Your task to perform on an android device: toggle javascript in the chrome app Image 0: 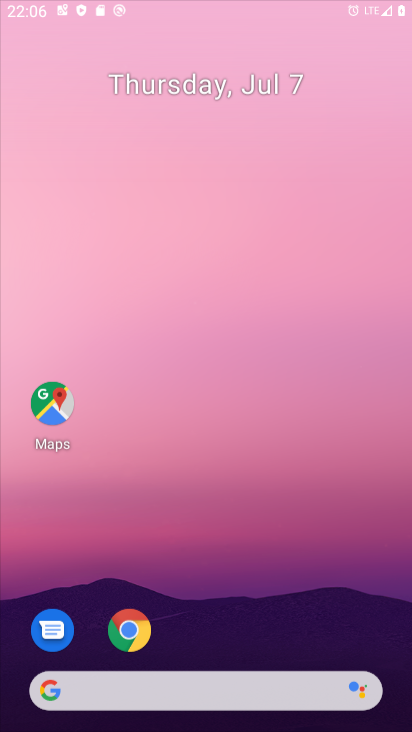
Step 0: click (200, 423)
Your task to perform on an android device: toggle javascript in the chrome app Image 1: 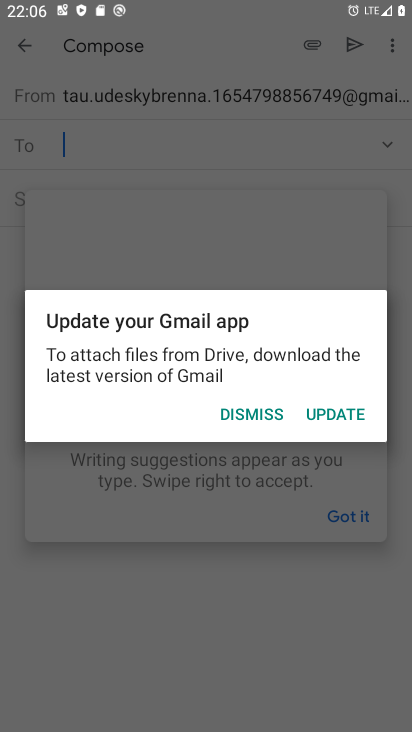
Step 1: press home button
Your task to perform on an android device: toggle javascript in the chrome app Image 2: 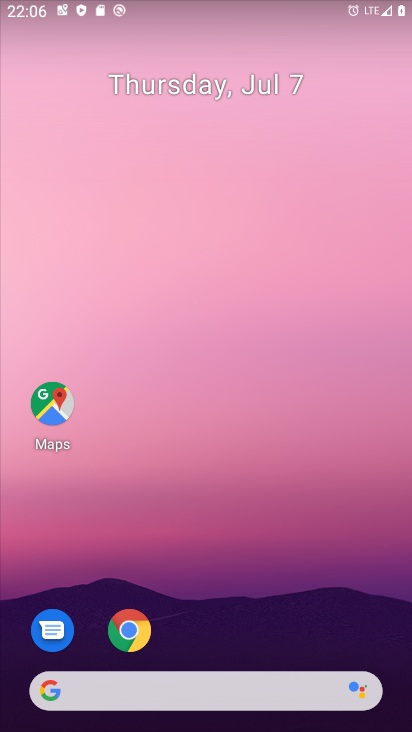
Step 2: drag from (166, 644) to (346, 33)
Your task to perform on an android device: toggle javascript in the chrome app Image 3: 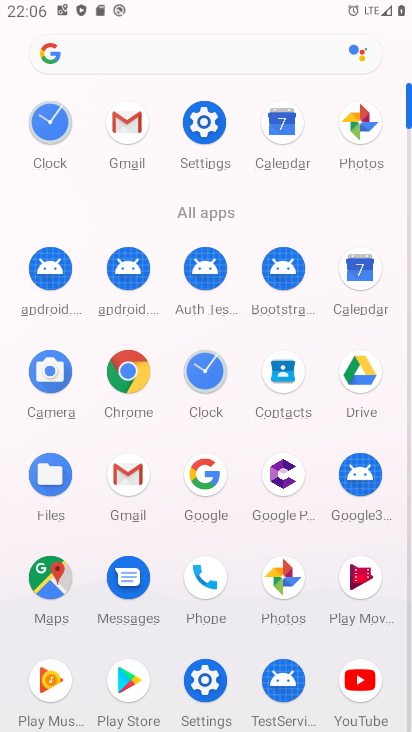
Step 3: click (126, 368)
Your task to perform on an android device: toggle javascript in the chrome app Image 4: 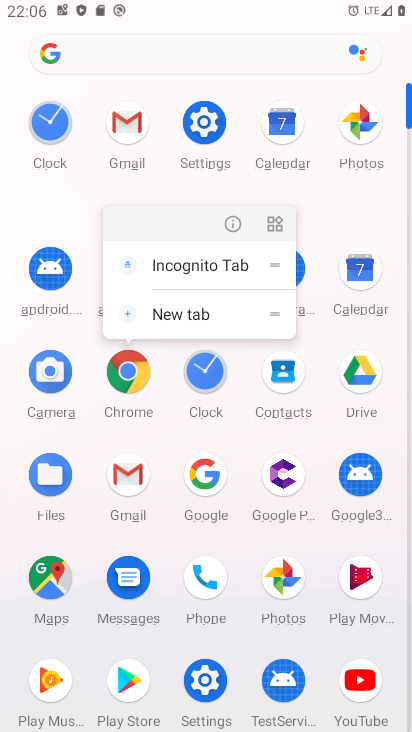
Step 4: click (231, 219)
Your task to perform on an android device: toggle javascript in the chrome app Image 5: 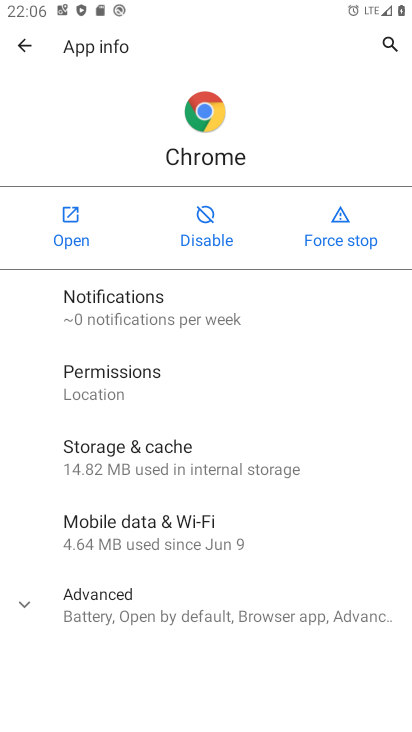
Step 5: click (54, 226)
Your task to perform on an android device: toggle javascript in the chrome app Image 6: 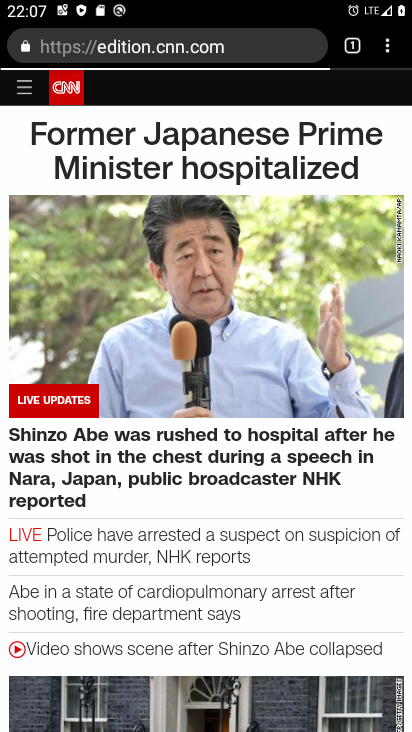
Step 6: drag from (180, 414) to (194, 123)
Your task to perform on an android device: toggle javascript in the chrome app Image 7: 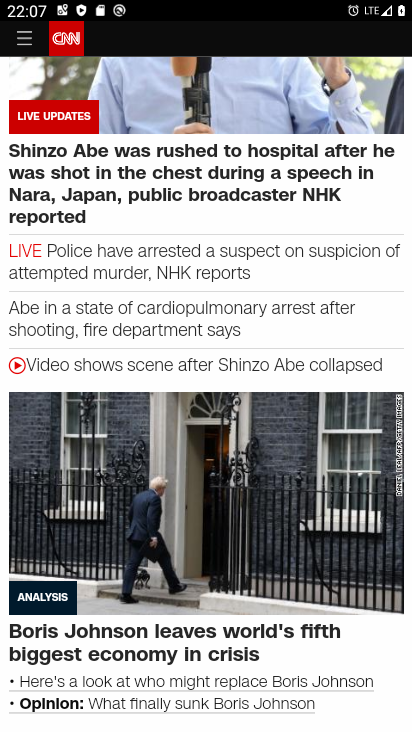
Step 7: drag from (200, 262) to (267, 571)
Your task to perform on an android device: toggle javascript in the chrome app Image 8: 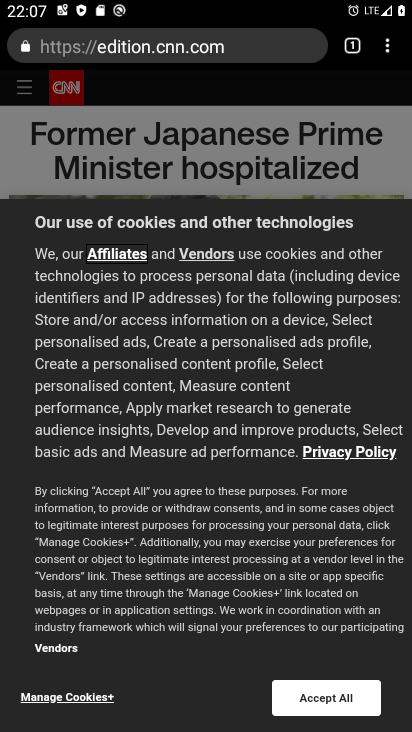
Step 8: press back button
Your task to perform on an android device: toggle javascript in the chrome app Image 9: 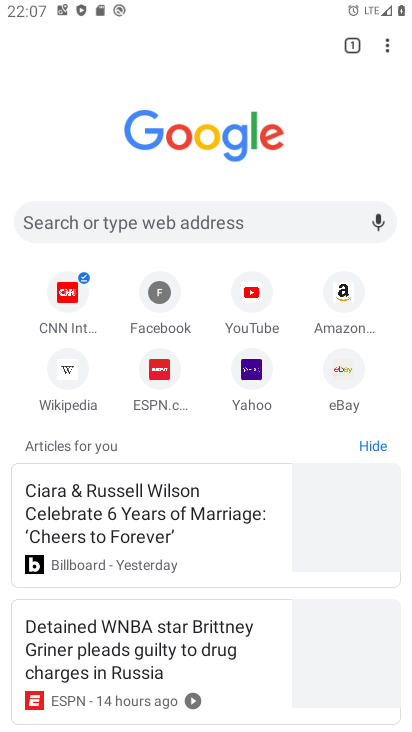
Step 9: click (382, 53)
Your task to perform on an android device: toggle javascript in the chrome app Image 10: 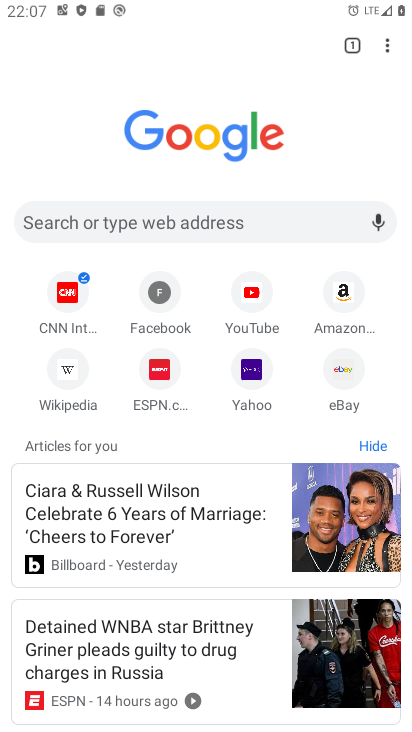
Step 10: click (389, 43)
Your task to perform on an android device: toggle javascript in the chrome app Image 11: 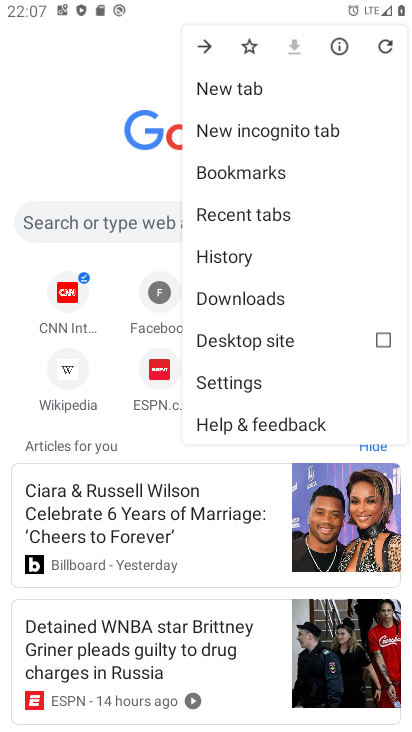
Step 11: click (221, 389)
Your task to perform on an android device: toggle javascript in the chrome app Image 12: 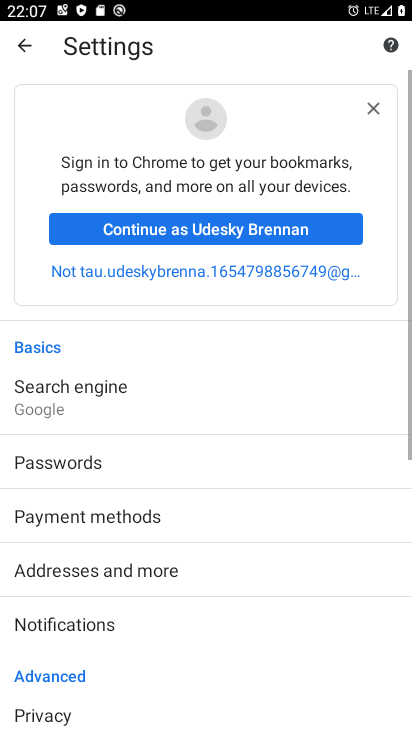
Step 12: drag from (182, 623) to (245, 241)
Your task to perform on an android device: toggle javascript in the chrome app Image 13: 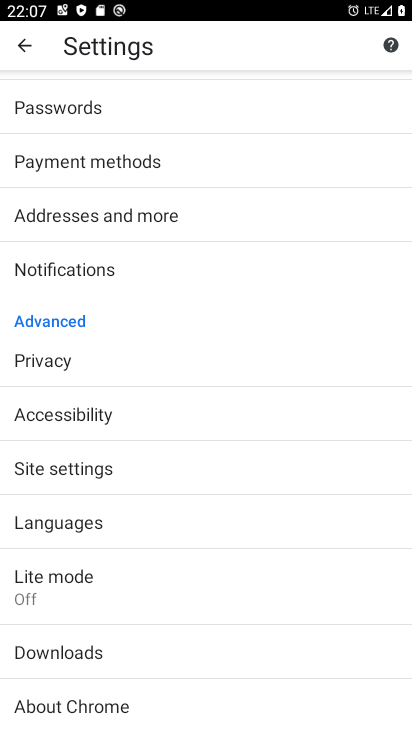
Step 13: drag from (184, 611) to (236, 264)
Your task to perform on an android device: toggle javascript in the chrome app Image 14: 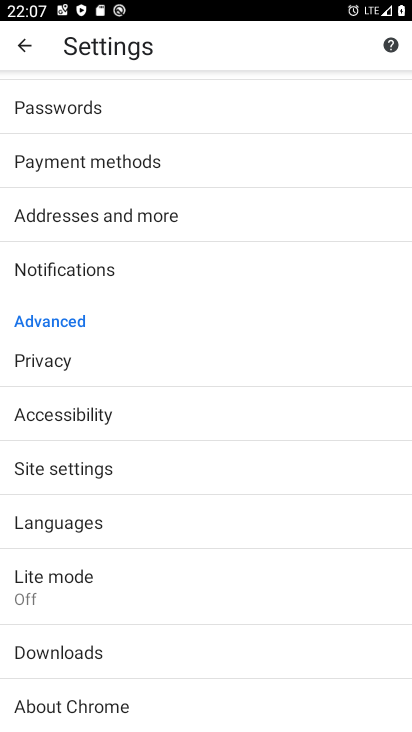
Step 14: click (72, 459)
Your task to perform on an android device: toggle javascript in the chrome app Image 15: 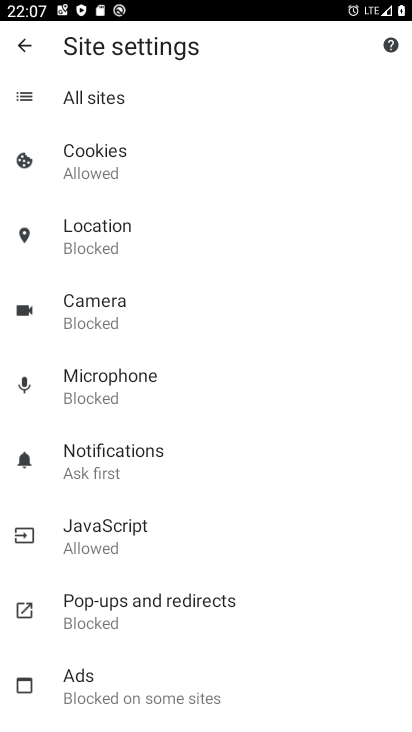
Step 15: click (141, 531)
Your task to perform on an android device: toggle javascript in the chrome app Image 16: 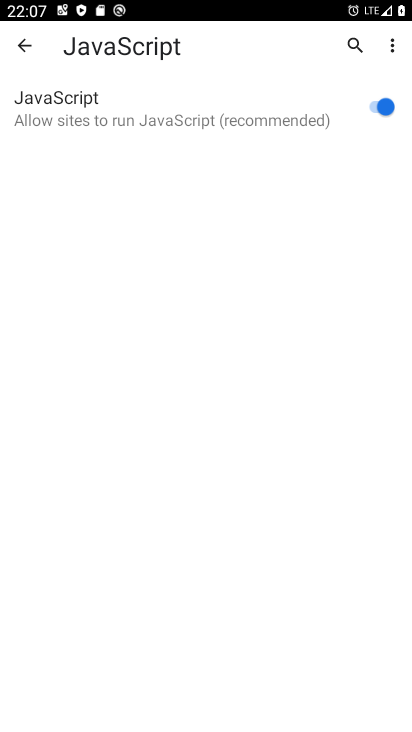
Step 16: drag from (221, 384) to (266, 219)
Your task to perform on an android device: toggle javascript in the chrome app Image 17: 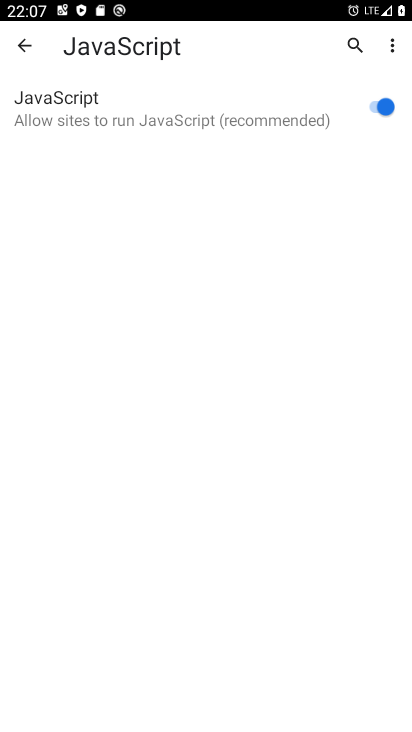
Step 17: click (379, 107)
Your task to perform on an android device: toggle javascript in the chrome app Image 18: 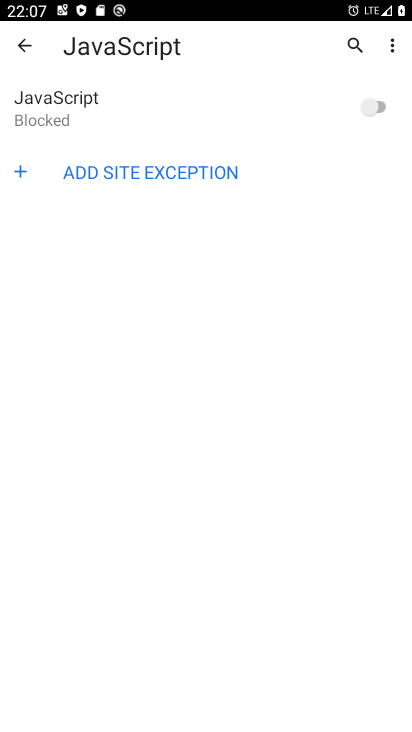
Step 18: task complete